Your task to perform on an android device: Open Android settings Image 0: 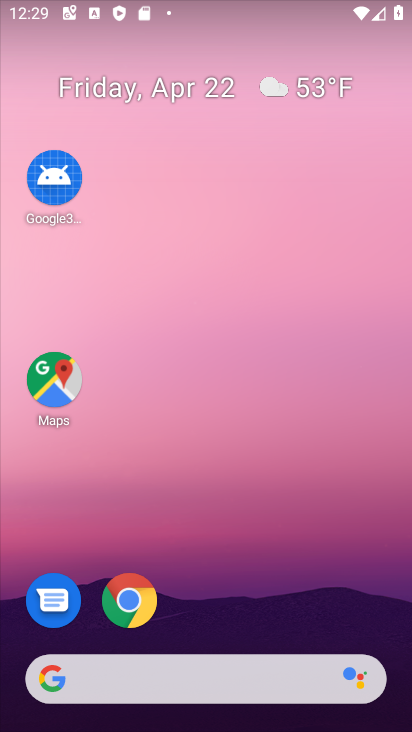
Step 0: drag from (215, 562) to (206, 28)
Your task to perform on an android device: Open Android settings Image 1: 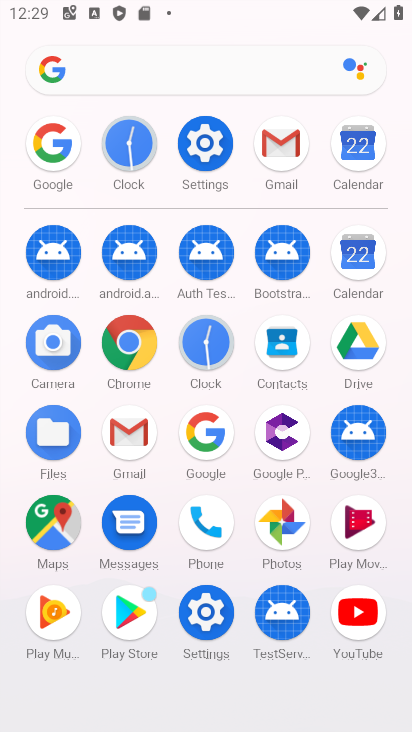
Step 1: click (202, 149)
Your task to perform on an android device: Open Android settings Image 2: 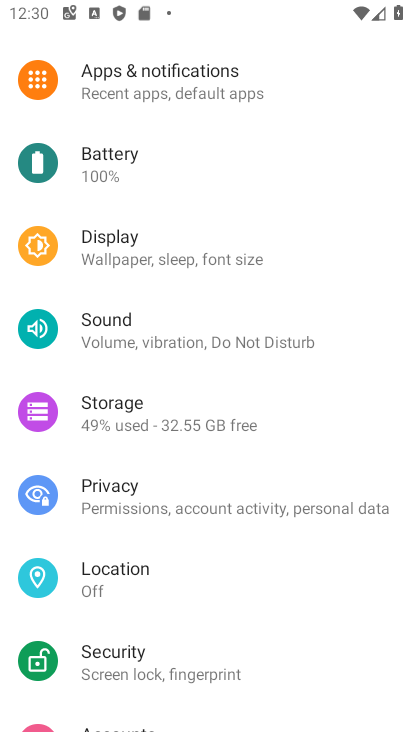
Step 2: drag from (222, 606) to (221, 89)
Your task to perform on an android device: Open Android settings Image 3: 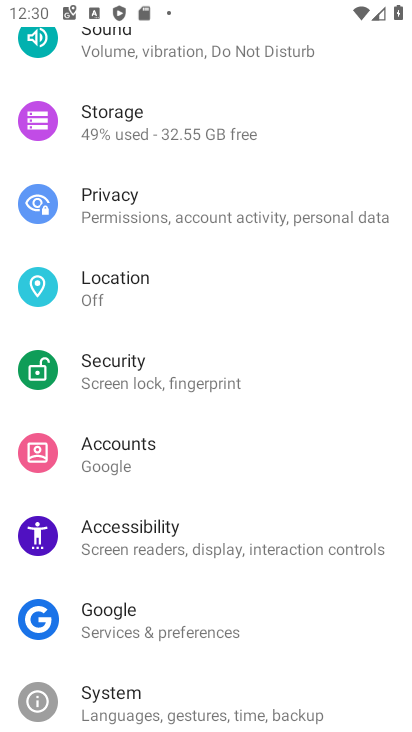
Step 3: drag from (258, 602) to (234, 111)
Your task to perform on an android device: Open Android settings Image 4: 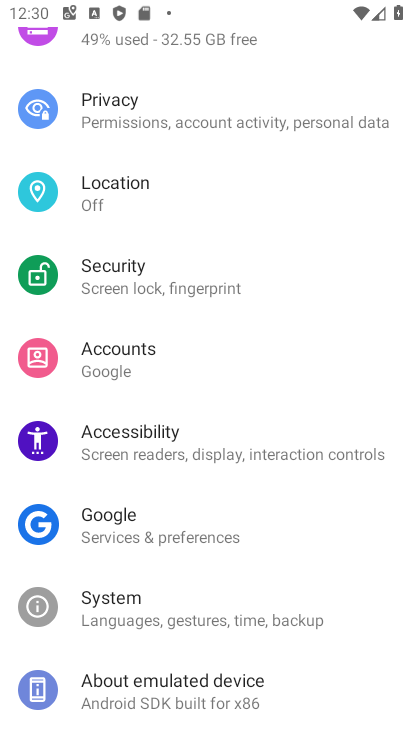
Step 4: click (200, 674)
Your task to perform on an android device: Open Android settings Image 5: 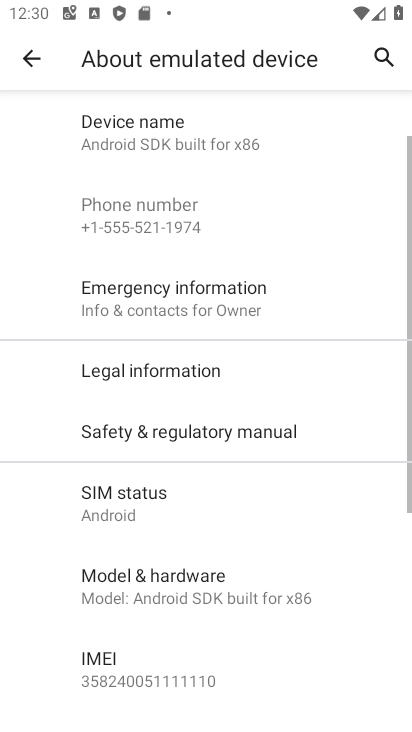
Step 5: drag from (230, 540) to (181, 166)
Your task to perform on an android device: Open Android settings Image 6: 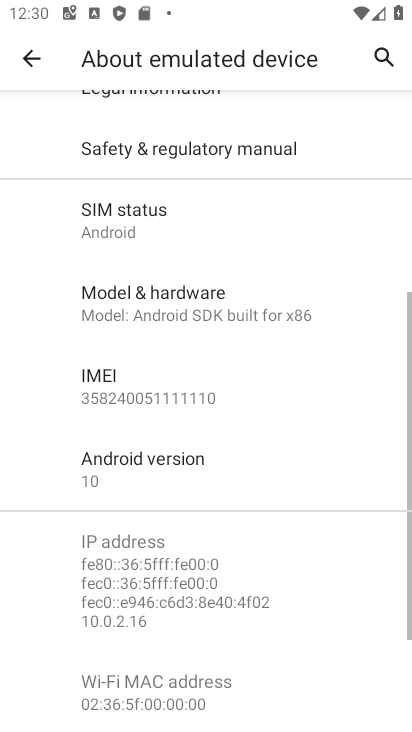
Step 6: click (165, 455)
Your task to perform on an android device: Open Android settings Image 7: 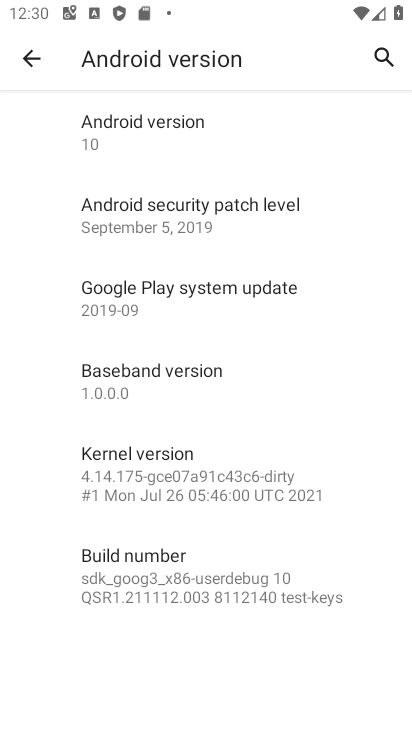
Step 7: task complete